Your task to perform on an android device: Search for sushi restaurants on Maps Image 0: 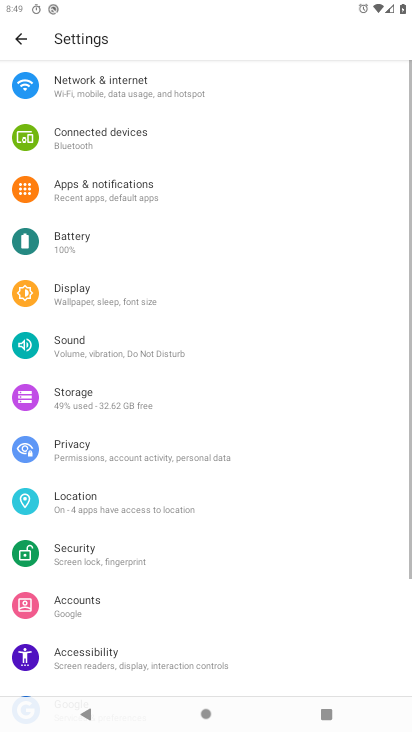
Step 0: press home button
Your task to perform on an android device: Search for sushi restaurants on Maps Image 1: 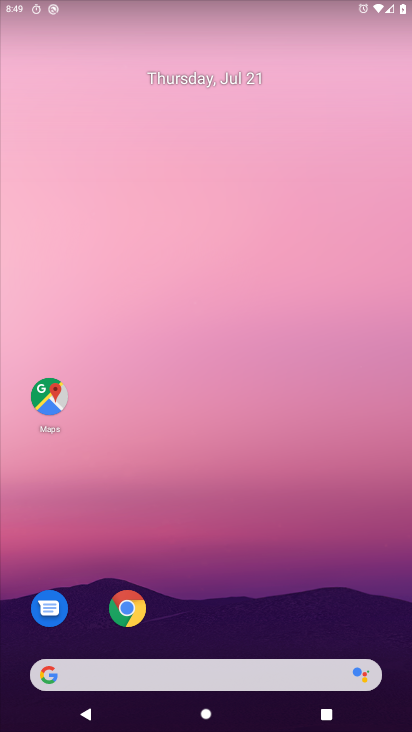
Step 1: click (44, 394)
Your task to perform on an android device: Search for sushi restaurants on Maps Image 2: 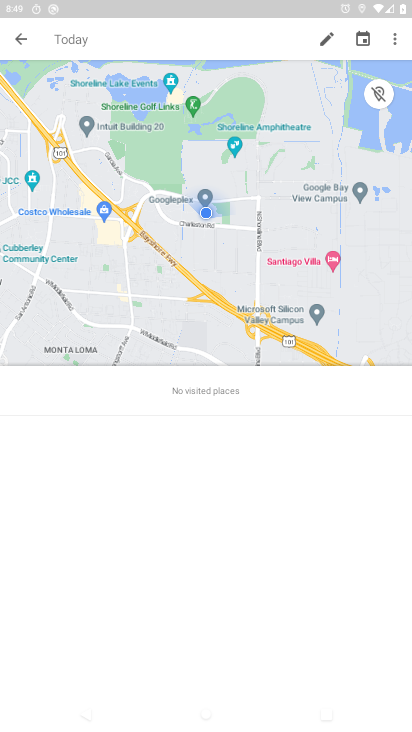
Step 2: click (70, 37)
Your task to perform on an android device: Search for sushi restaurants on Maps Image 3: 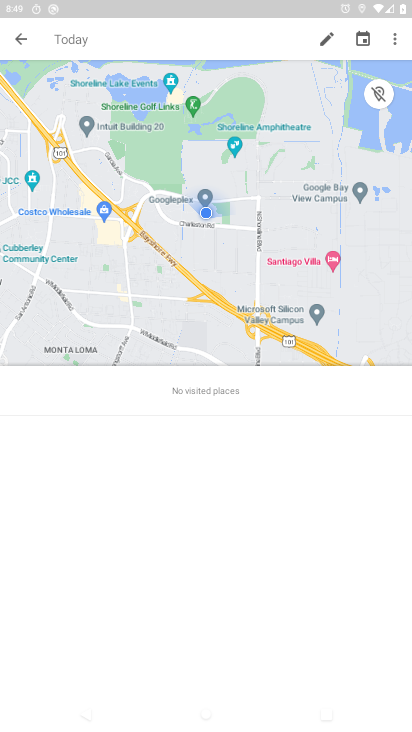
Step 3: click (17, 38)
Your task to perform on an android device: Search for sushi restaurants on Maps Image 4: 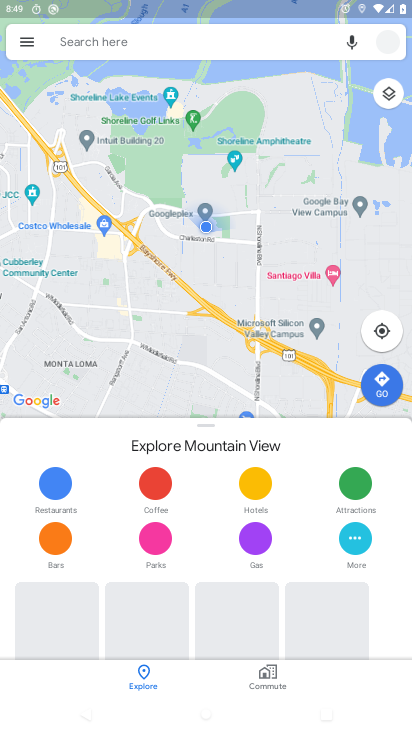
Step 4: click (88, 48)
Your task to perform on an android device: Search for sushi restaurants on Maps Image 5: 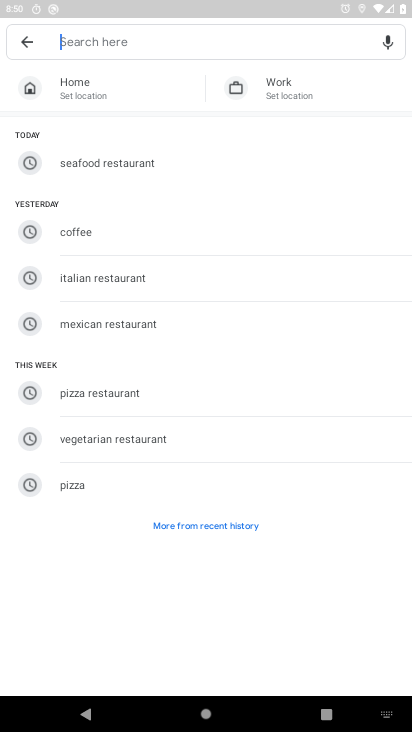
Step 5: type "sushi restaurants"
Your task to perform on an android device: Search for sushi restaurants on Maps Image 6: 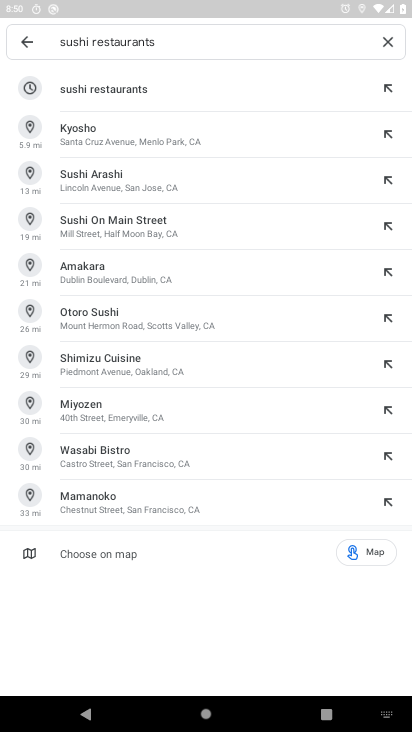
Step 6: click (128, 92)
Your task to perform on an android device: Search for sushi restaurants on Maps Image 7: 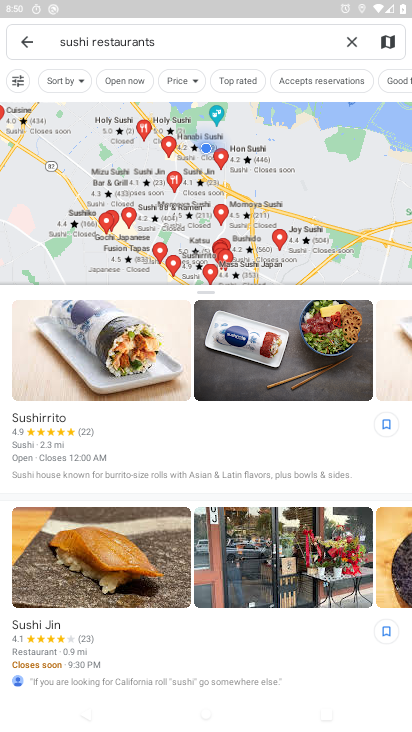
Step 7: task complete